Your task to perform on an android device: What's the weather going to be this weekend? Image 0: 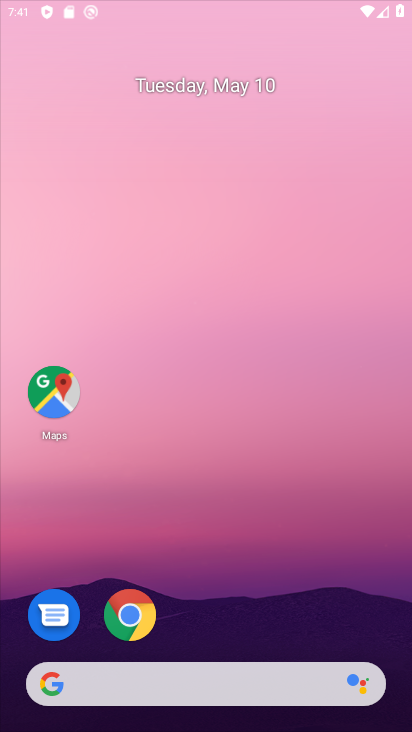
Step 0: click (281, 82)
Your task to perform on an android device: What's the weather going to be this weekend? Image 1: 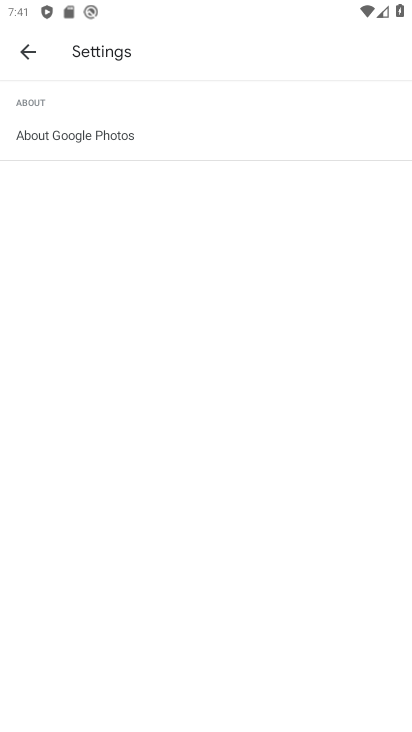
Step 1: drag from (252, 635) to (331, 144)
Your task to perform on an android device: What's the weather going to be this weekend? Image 2: 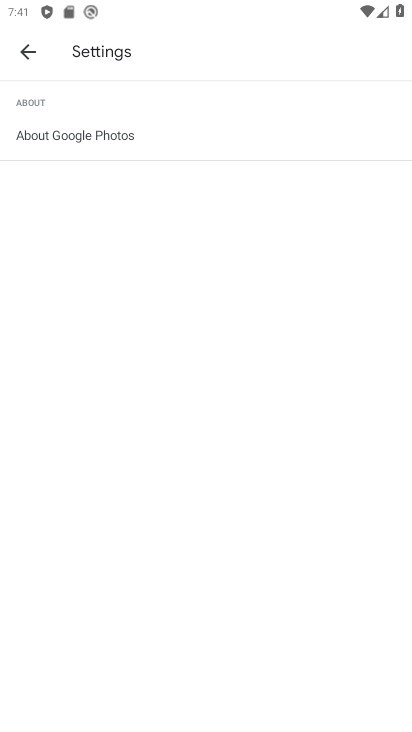
Step 2: press home button
Your task to perform on an android device: What's the weather going to be this weekend? Image 3: 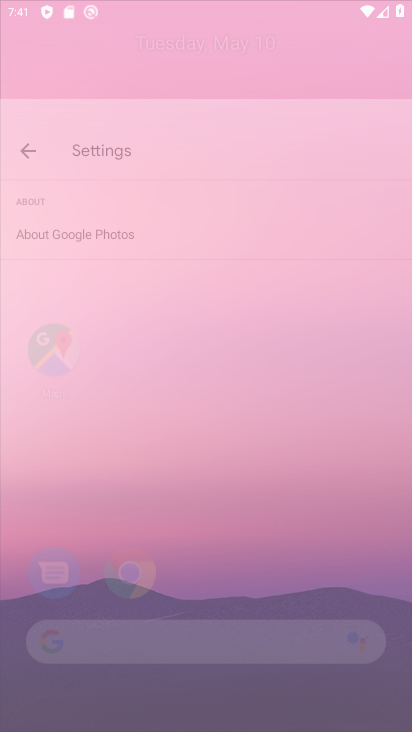
Step 3: drag from (105, 560) to (213, 159)
Your task to perform on an android device: What's the weather going to be this weekend? Image 4: 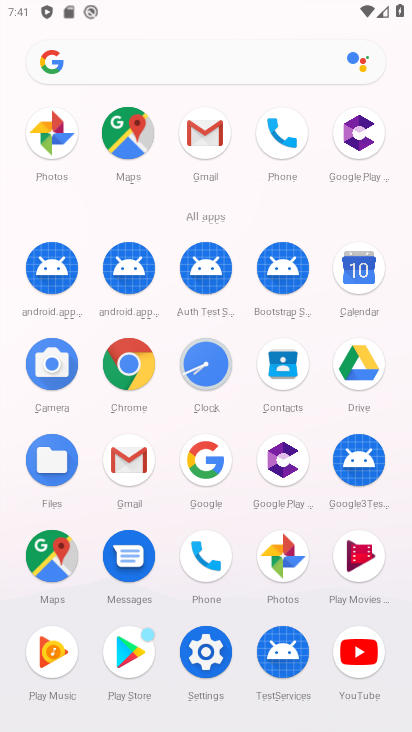
Step 4: click (171, 56)
Your task to perform on an android device: What's the weather going to be this weekend? Image 5: 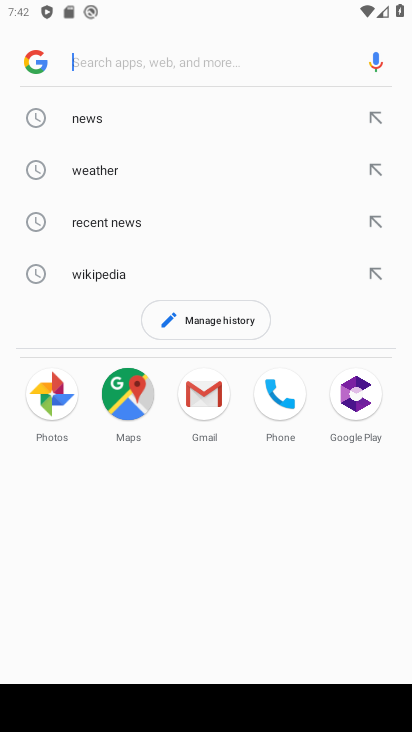
Step 5: click (150, 62)
Your task to perform on an android device: What's the weather going to be this weekend? Image 6: 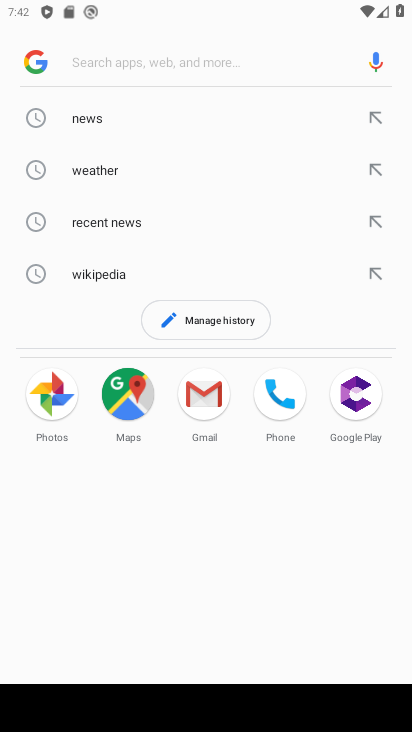
Step 6: type "weather weekend"
Your task to perform on an android device: What's the weather going to be this weekend? Image 7: 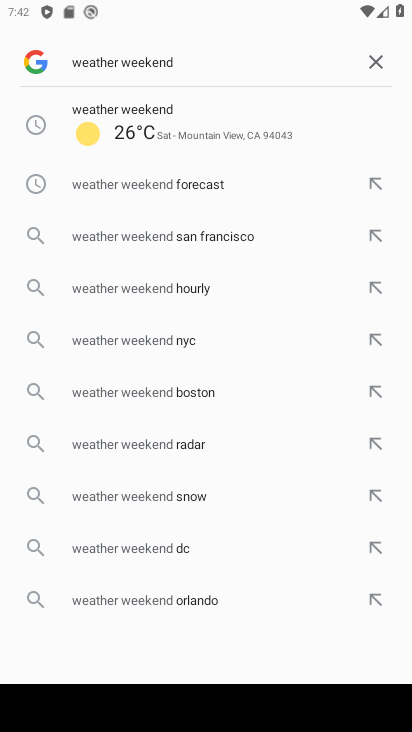
Step 7: click (179, 123)
Your task to perform on an android device: What's the weather going to be this weekend? Image 8: 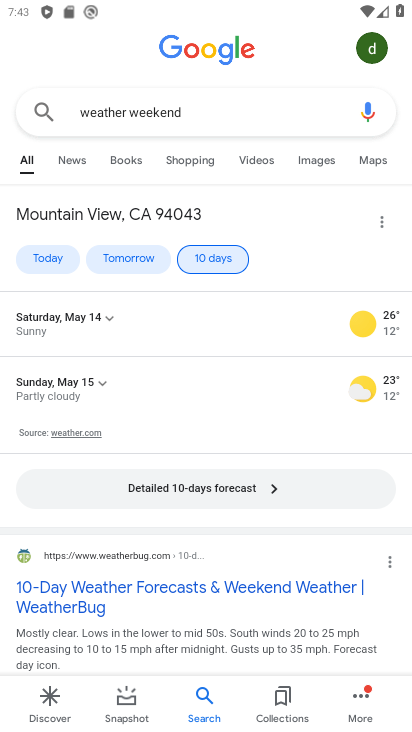
Step 8: task complete